Your task to perform on an android device: Go to display settings Image 0: 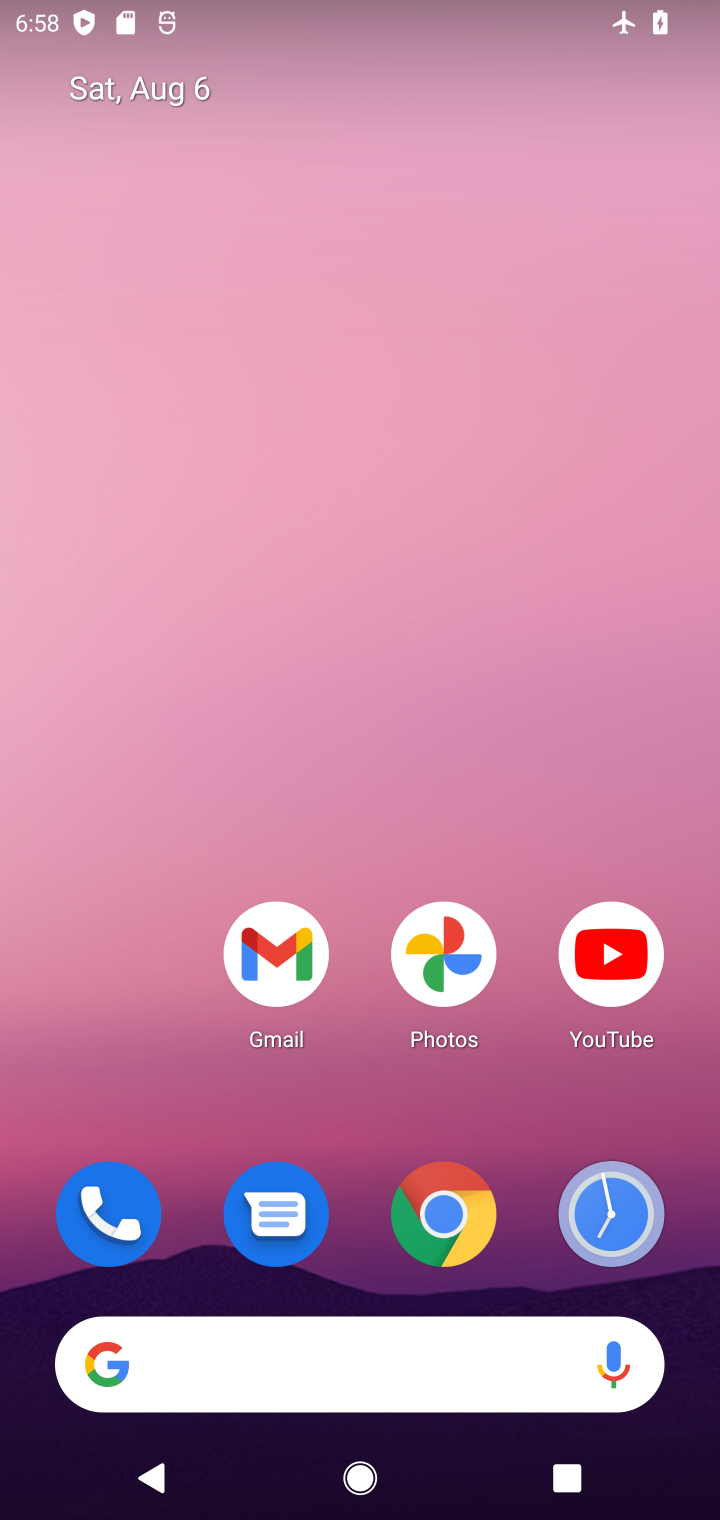
Step 0: drag from (329, 1106) to (366, 42)
Your task to perform on an android device: Go to display settings Image 1: 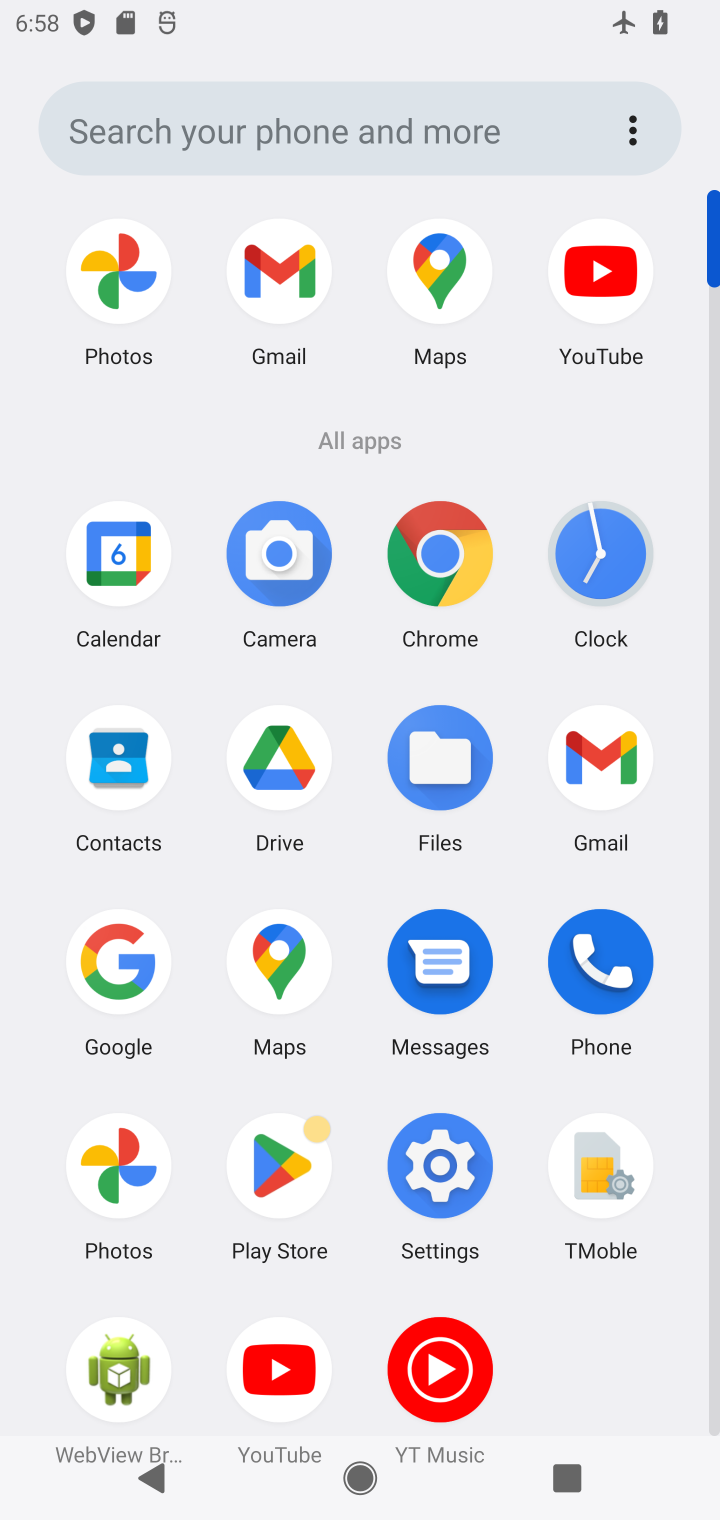
Step 1: click (443, 1161)
Your task to perform on an android device: Go to display settings Image 2: 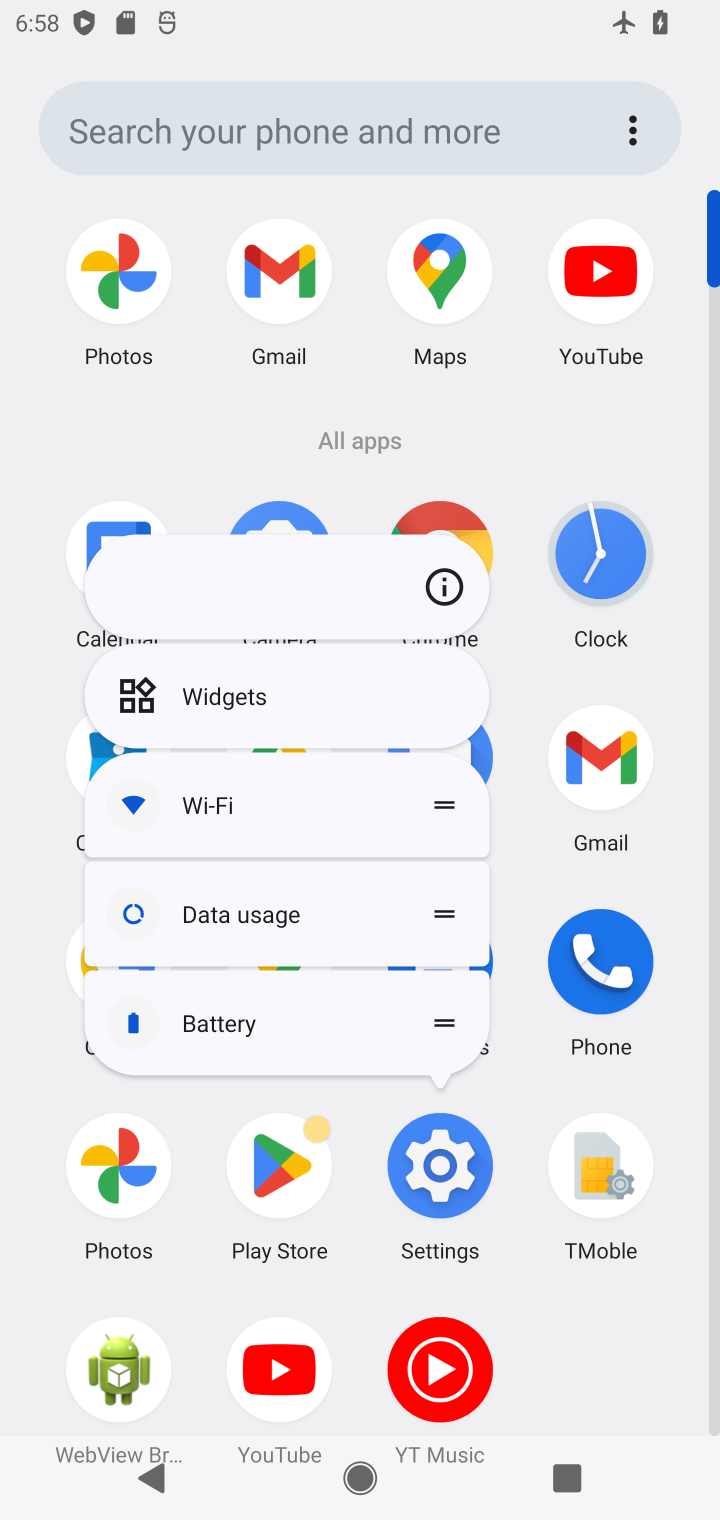
Step 2: click (460, 1182)
Your task to perform on an android device: Go to display settings Image 3: 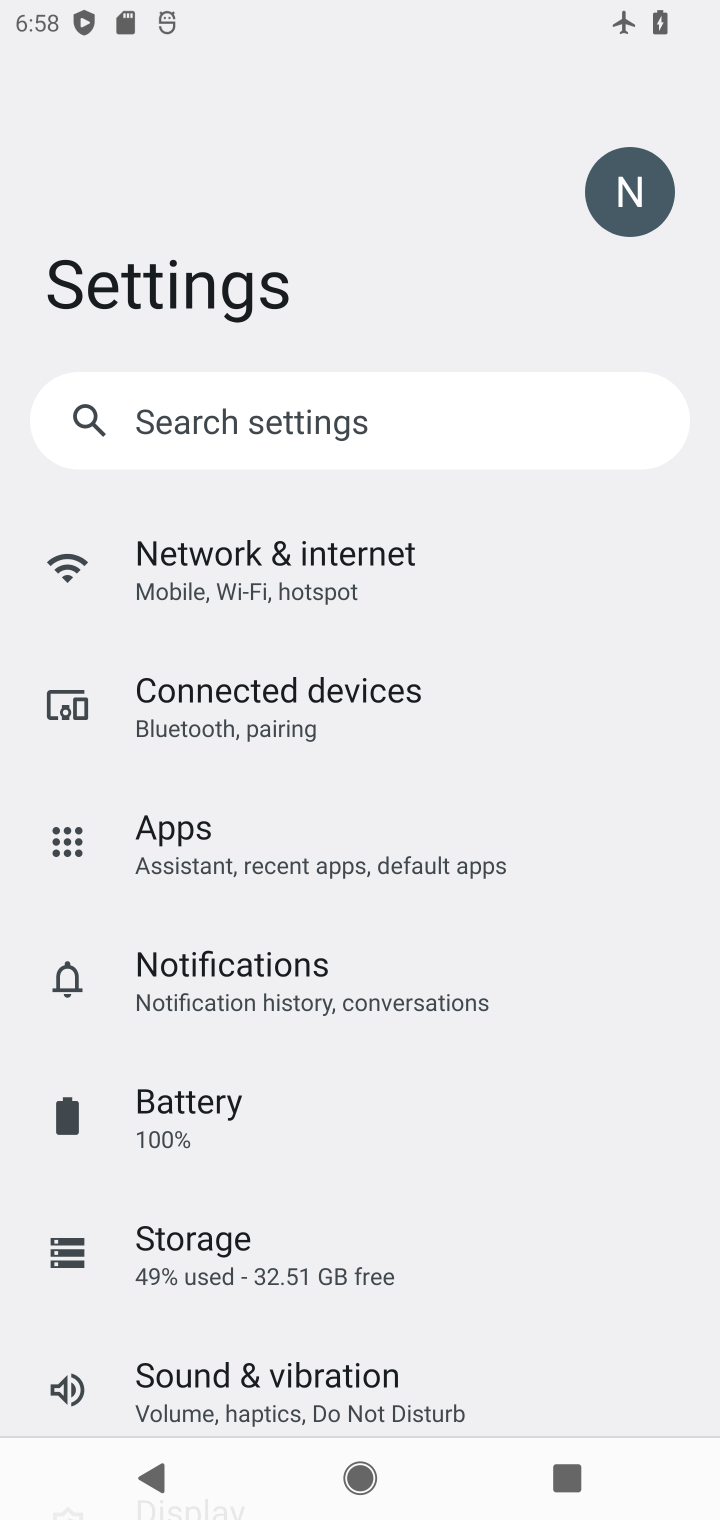
Step 3: drag from (206, 1297) to (259, 839)
Your task to perform on an android device: Go to display settings Image 4: 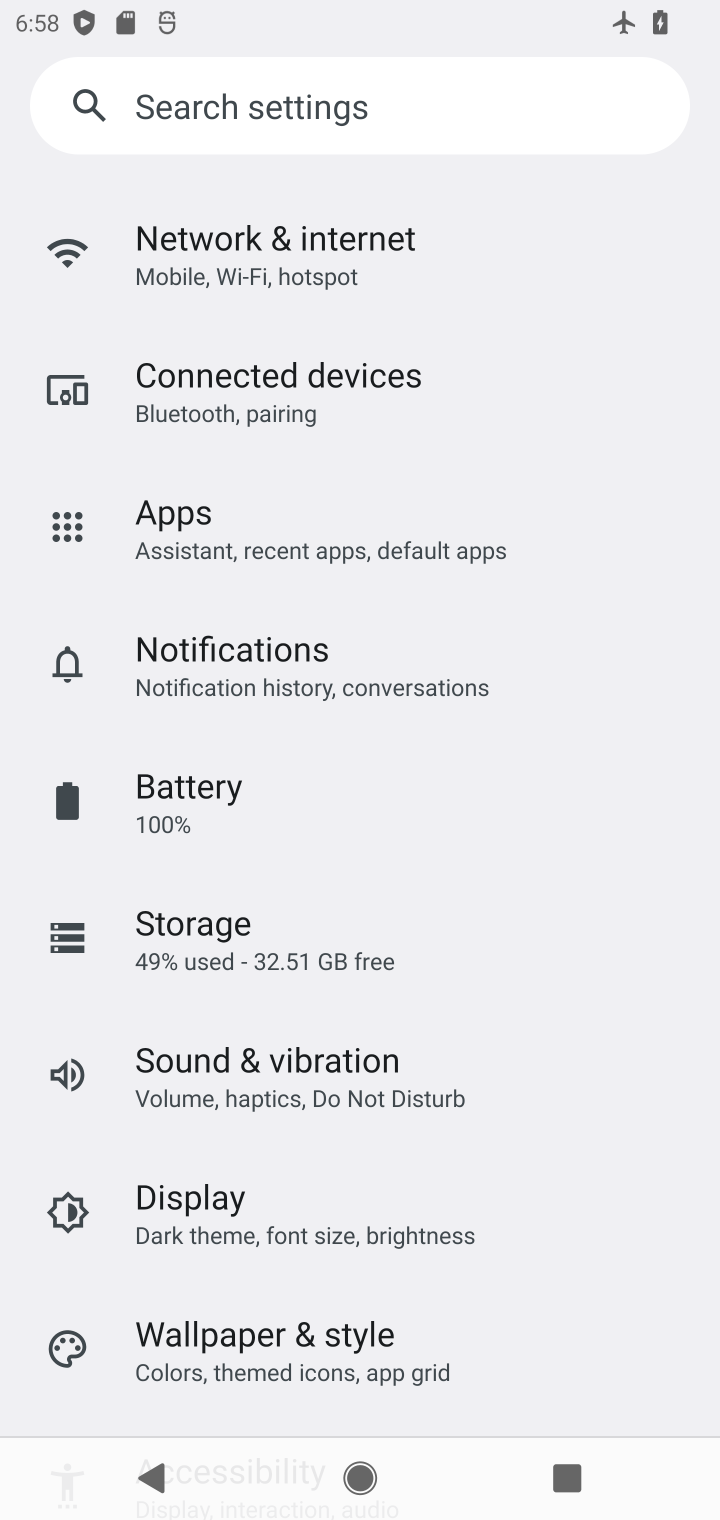
Step 4: click (209, 1205)
Your task to perform on an android device: Go to display settings Image 5: 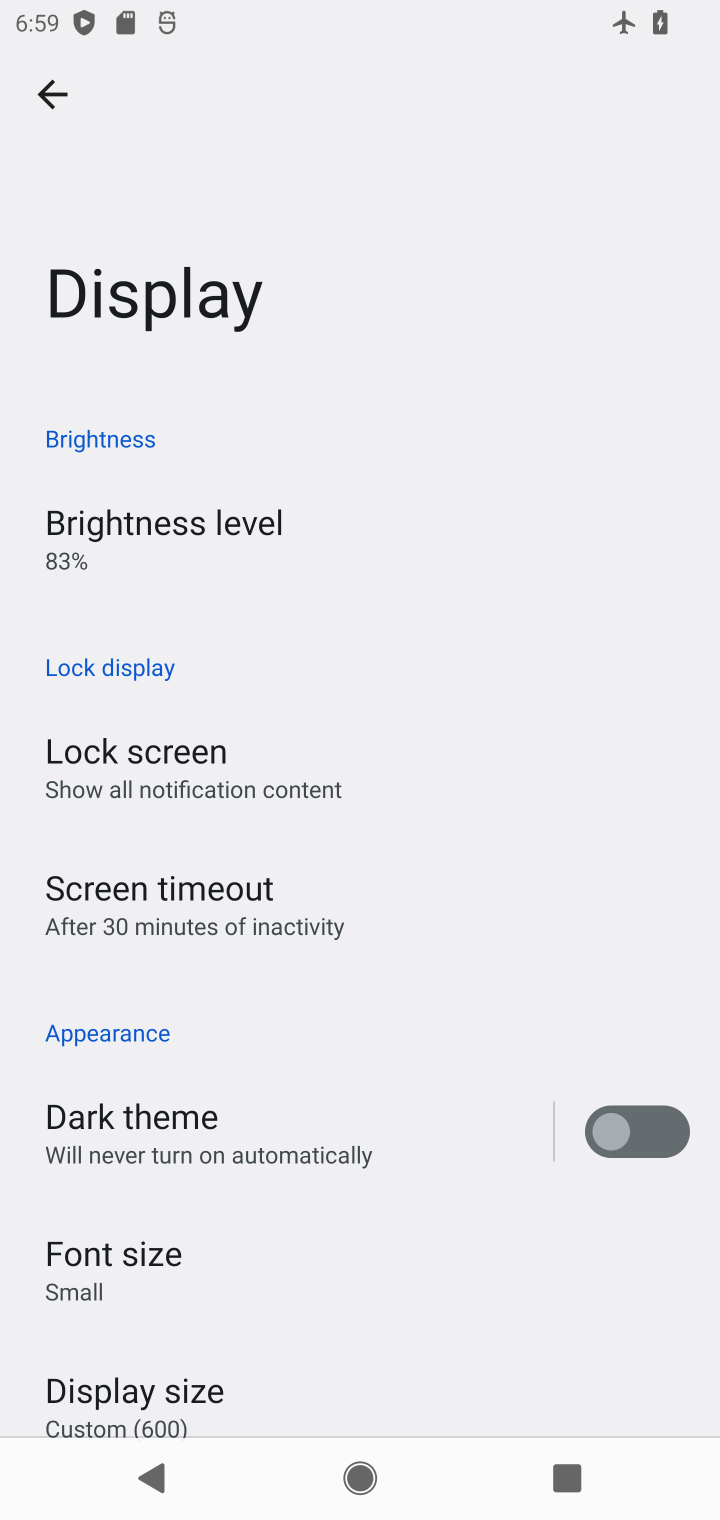
Step 5: task complete